Your task to perform on an android device: Open Yahoo.com Image 0: 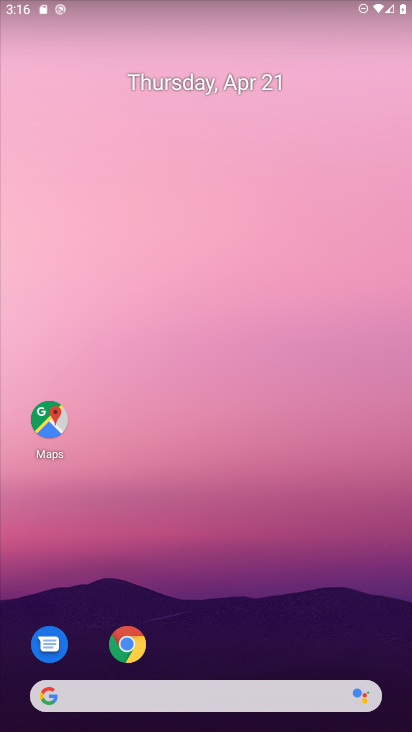
Step 0: click (126, 639)
Your task to perform on an android device: Open Yahoo.com Image 1: 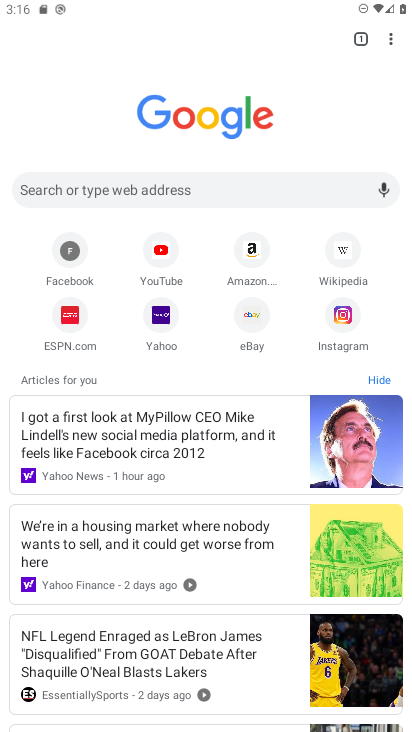
Step 1: click (132, 197)
Your task to perform on an android device: Open Yahoo.com Image 2: 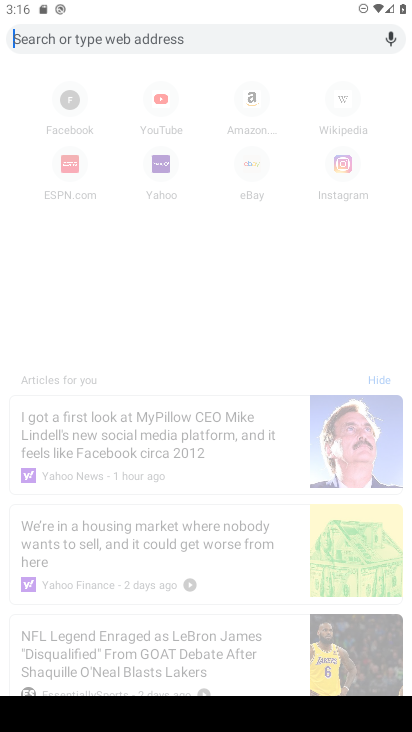
Step 2: click (158, 157)
Your task to perform on an android device: Open Yahoo.com Image 3: 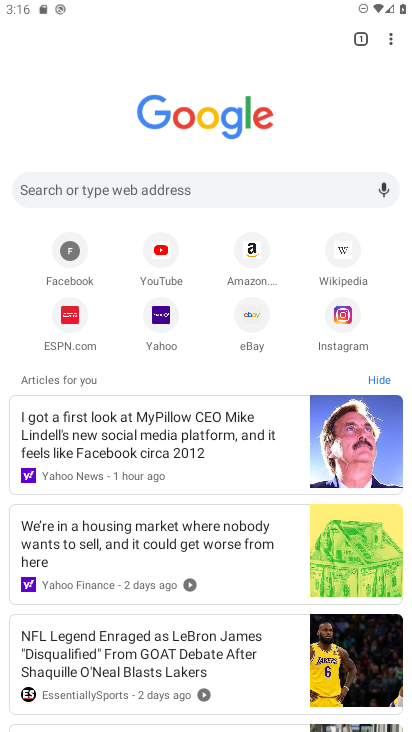
Step 3: click (160, 313)
Your task to perform on an android device: Open Yahoo.com Image 4: 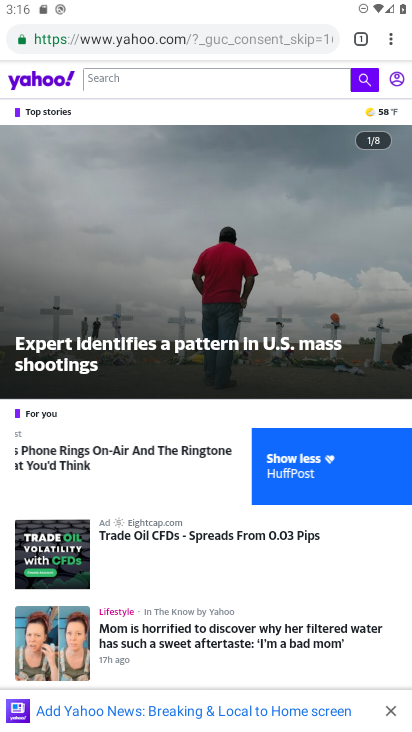
Step 4: task complete